Your task to perform on an android device: Open CNN.com Image 0: 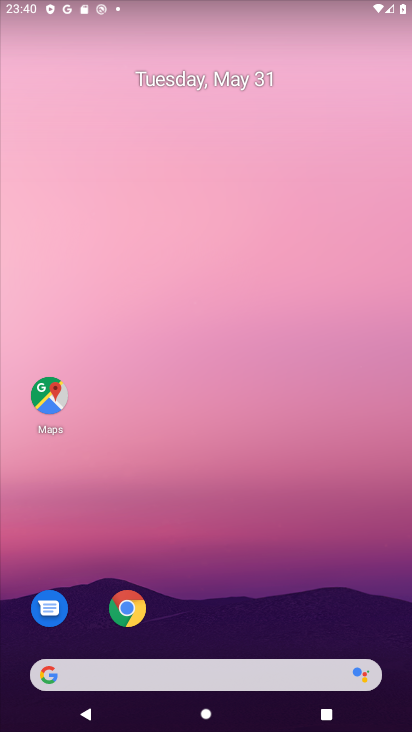
Step 0: press home button
Your task to perform on an android device: Open CNN.com Image 1: 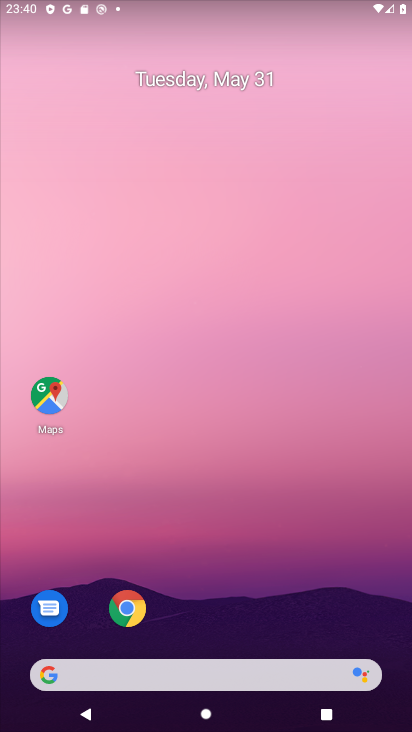
Step 1: click (133, 616)
Your task to perform on an android device: Open CNN.com Image 2: 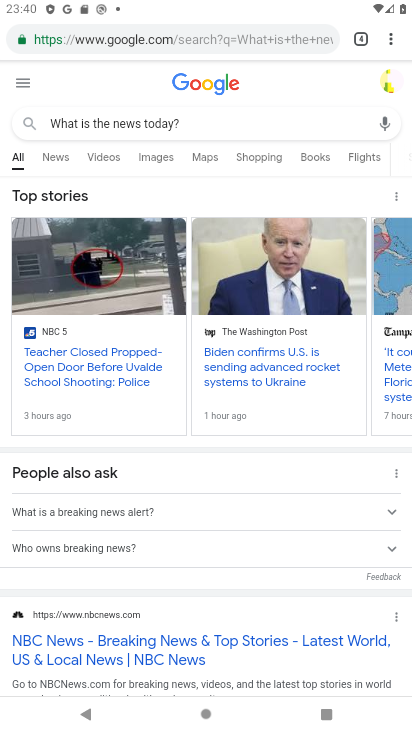
Step 2: click (136, 34)
Your task to perform on an android device: Open CNN.com Image 3: 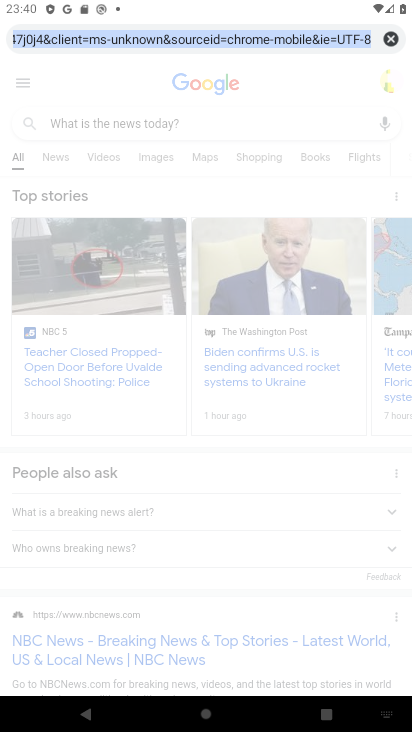
Step 3: click (388, 36)
Your task to perform on an android device: Open CNN.com Image 4: 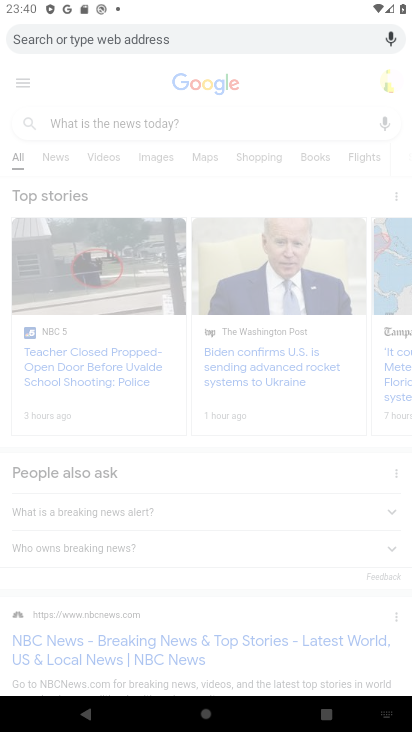
Step 4: type " CNN.com"
Your task to perform on an android device: Open CNN.com Image 5: 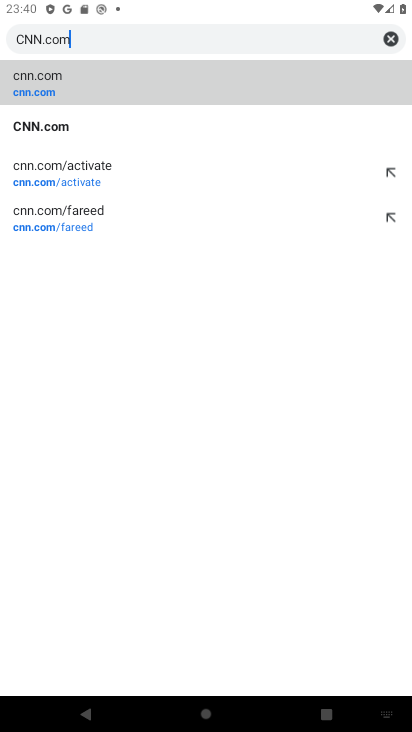
Step 5: click (105, 57)
Your task to perform on an android device: Open CNN.com Image 6: 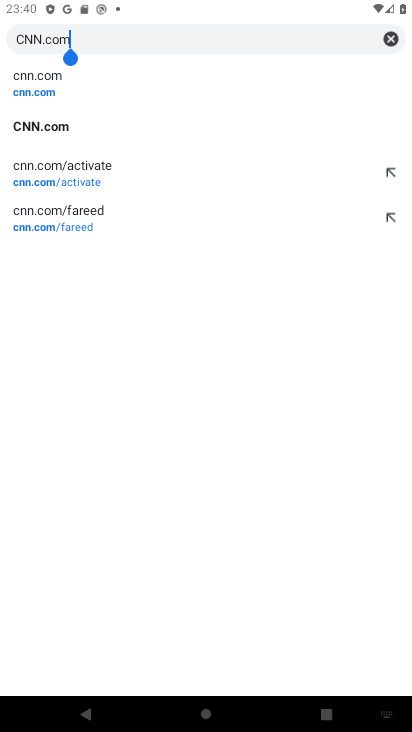
Step 6: click (100, 84)
Your task to perform on an android device: Open CNN.com Image 7: 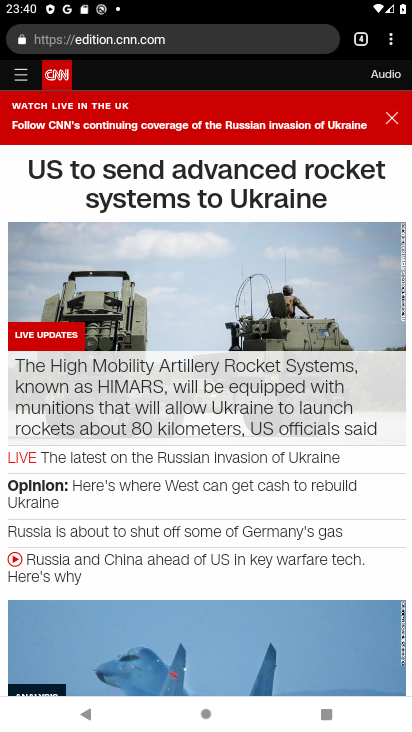
Step 7: task complete